Your task to perform on an android device: all mails in gmail Image 0: 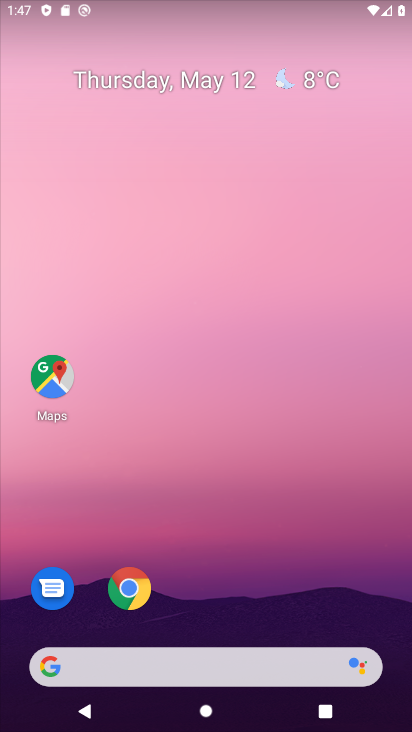
Step 0: drag from (275, 628) to (296, 12)
Your task to perform on an android device: all mails in gmail Image 1: 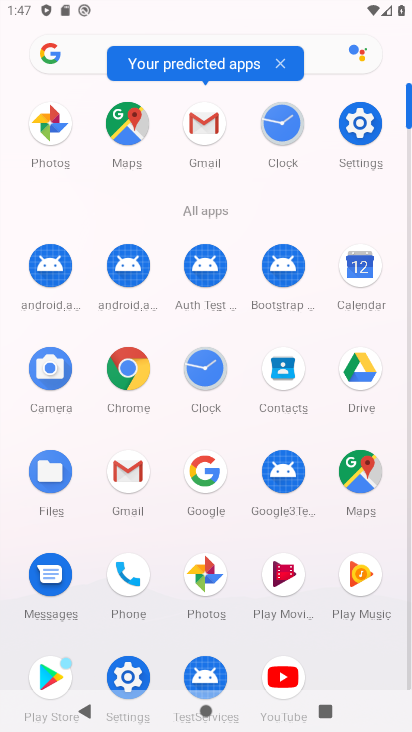
Step 1: click (207, 133)
Your task to perform on an android device: all mails in gmail Image 2: 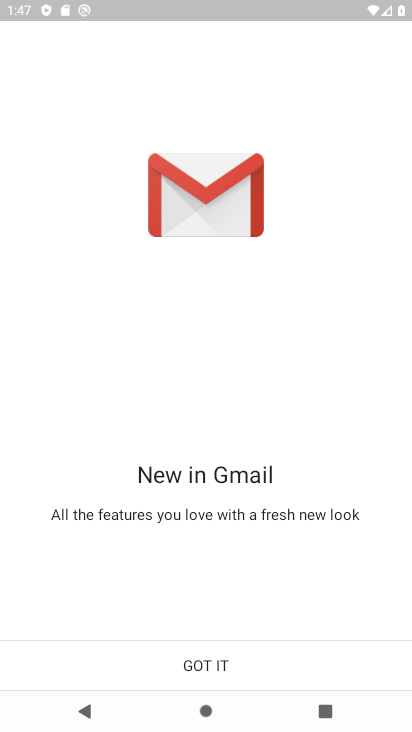
Step 2: click (241, 660)
Your task to perform on an android device: all mails in gmail Image 3: 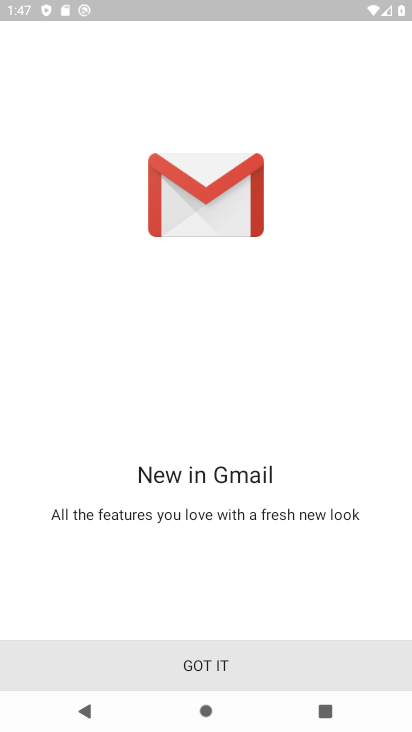
Step 3: click (241, 660)
Your task to perform on an android device: all mails in gmail Image 4: 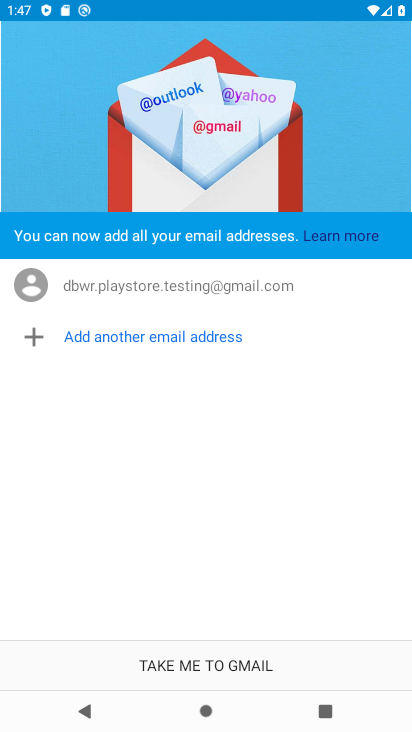
Step 4: click (241, 660)
Your task to perform on an android device: all mails in gmail Image 5: 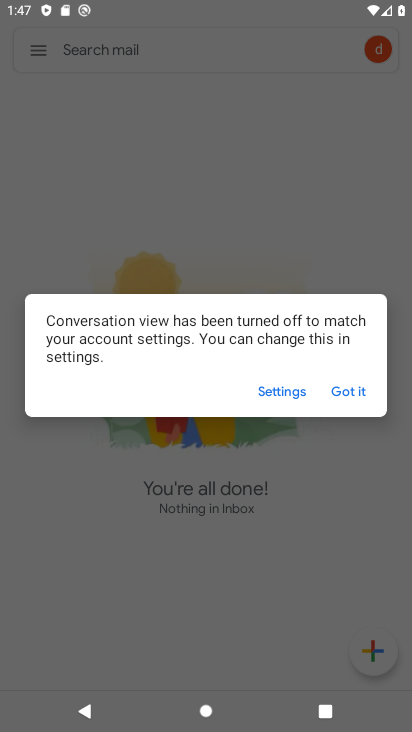
Step 5: click (355, 380)
Your task to perform on an android device: all mails in gmail Image 6: 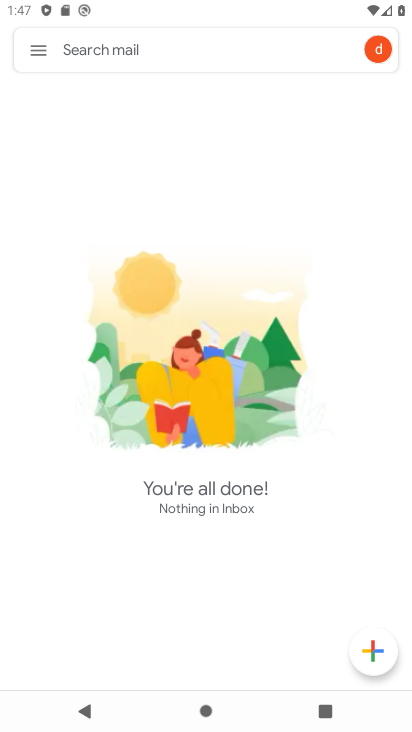
Step 6: click (26, 54)
Your task to perform on an android device: all mails in gmail Image 7: 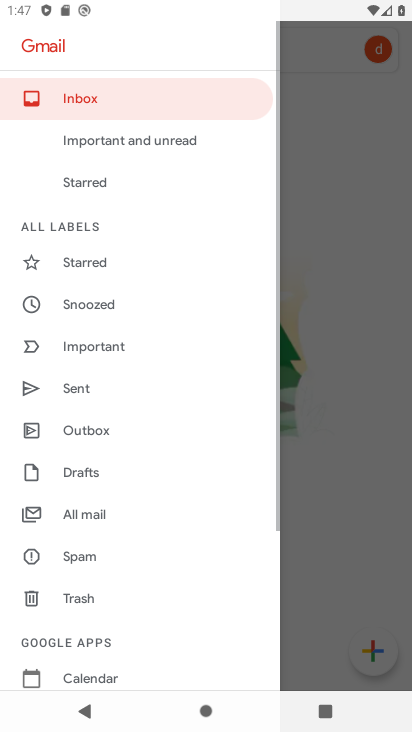
Step 7: click (92, 510)
Your task to perform on an android device: all mails in gmail Image 8: 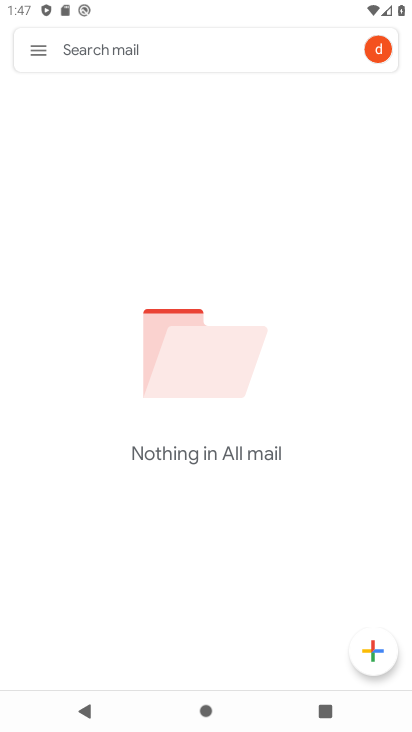
Step 8: task complete